Your task to perform on an android device: turn on the 12-hour format for clock Image 0: 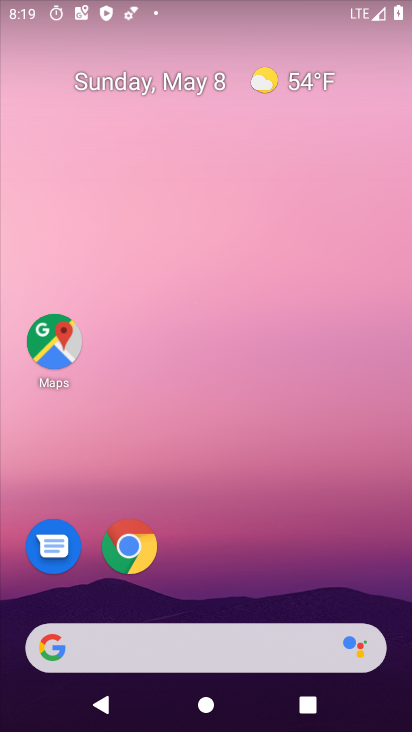
Step 0: drag from (383, 351) to (354, 203)
Your task to perform on an android device: turn on the 12-hour format for clock Image 1: 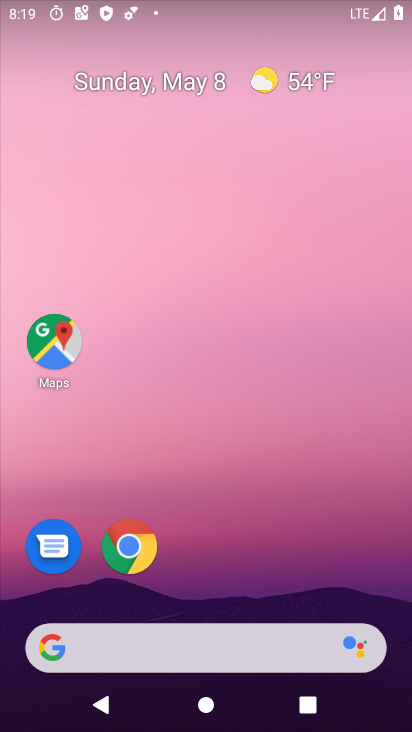
Step 1: drag from (390, 632) to (306, 146)
Your task to perform on an android device: turn on the 12-hour format for clock Image 2: 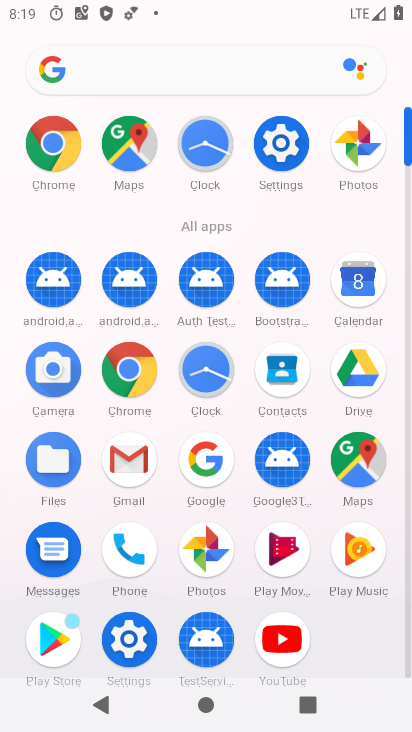
Step 2: click (202, 362)
Your task to perform on an android device: turn on the 12-hour format for clock Image 3: 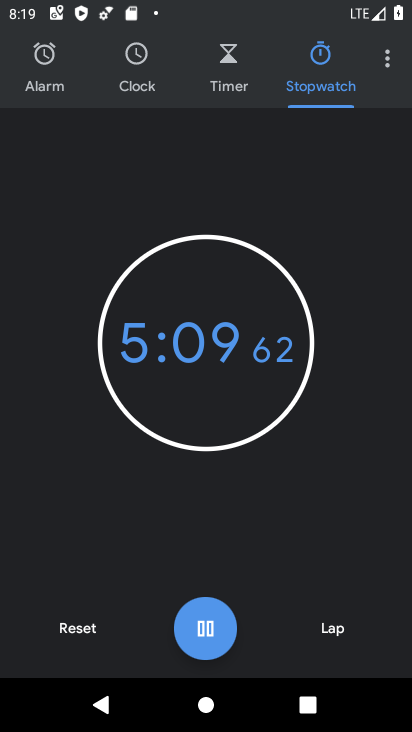
Step 3: click (390, 56)
Your task to perform on an android device: turn on the 12-hour format for clock Image 4: 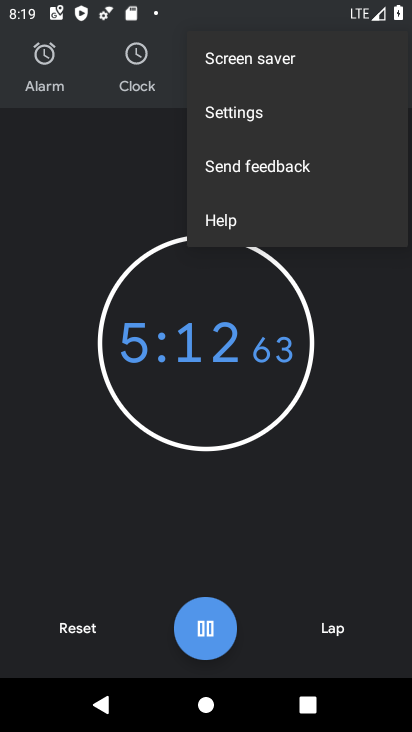
Step 4: click (254, 105)
Your task to perform on an android device: turn on the 12-hour format for clock Image 5: 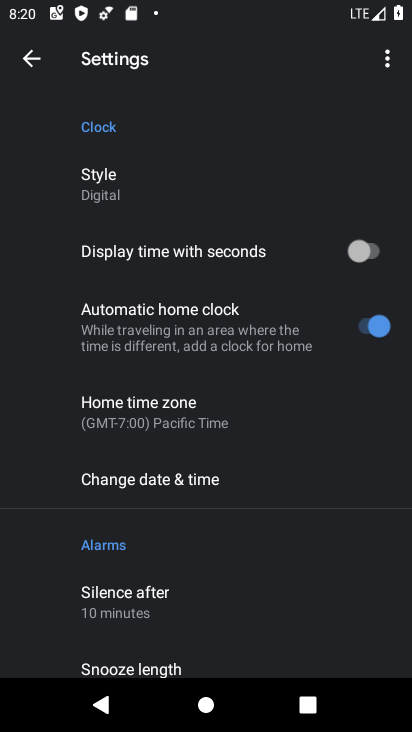
Step 5: click (154, 481)
Your task to perform on an android device: turn on the 12-hour format for clock Image 6: 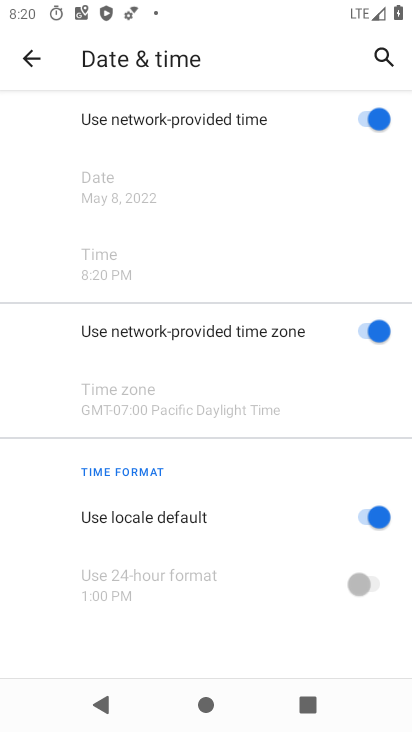
Step 6: drag from (263, 597) to (222, 311)
Your task to perform on an android device: turn on the 12-hour format for clock Image 7: 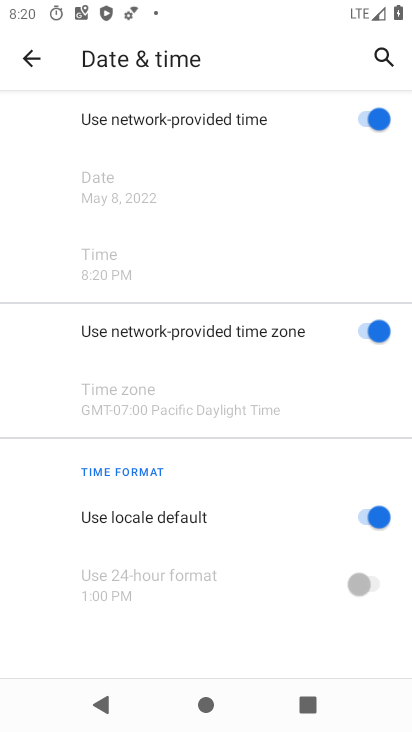
Step 7: click (361, 514)
Your task to perform on an android device: turn on the 12-hour format for clock Image 8: 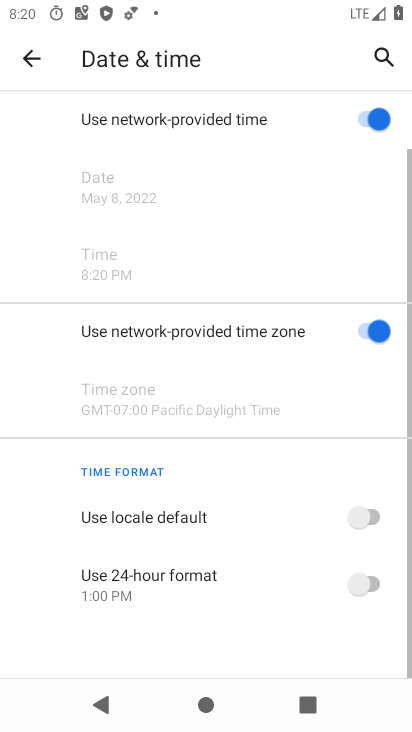
Step 8: click (368, 583)
Your task to perform on an android device: turn on the 12-hour format for clock Image 9: 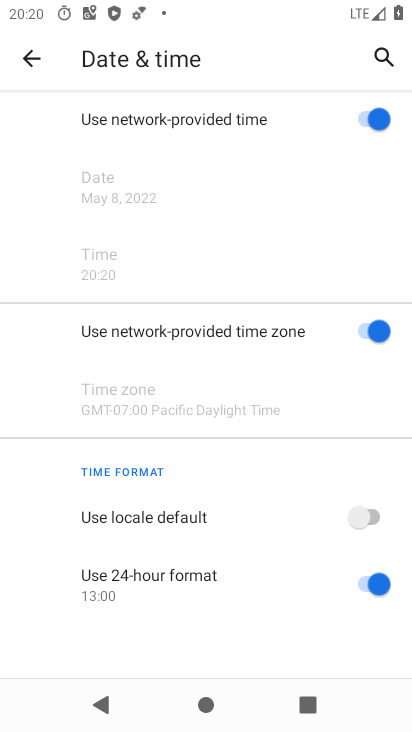
Step 9: click (367, 582)
Your task to perform on an android device: turn on the 12-hour format for clock Image 10: 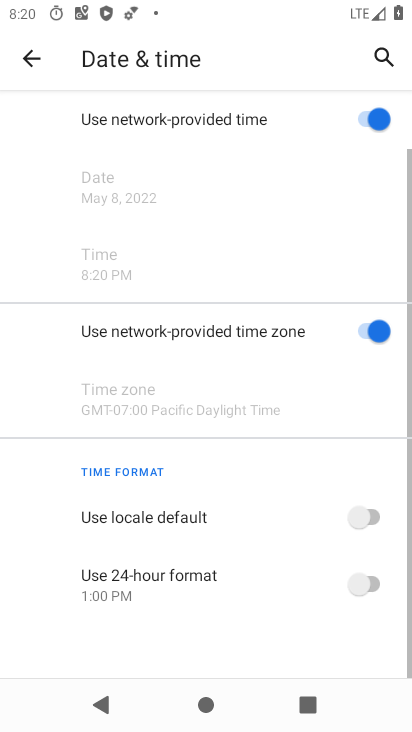
Step 10: click (370, 516)
Your task to perform on an android device: turn on the 12-hour format for clock Image 11: 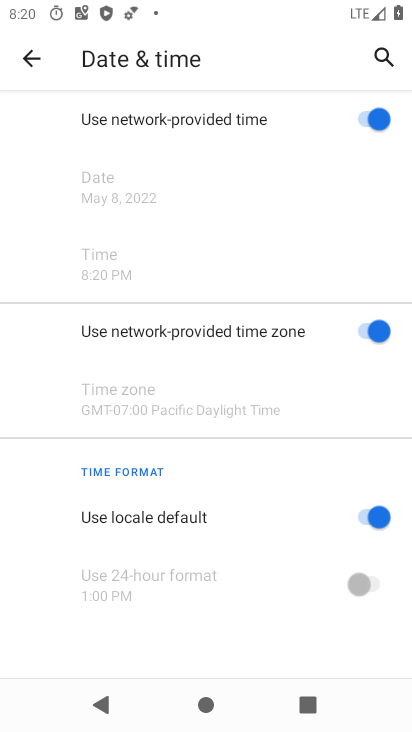
Step 11: task complete